Your task to perform on an android device: Open Chrome and go to settings Image 0: 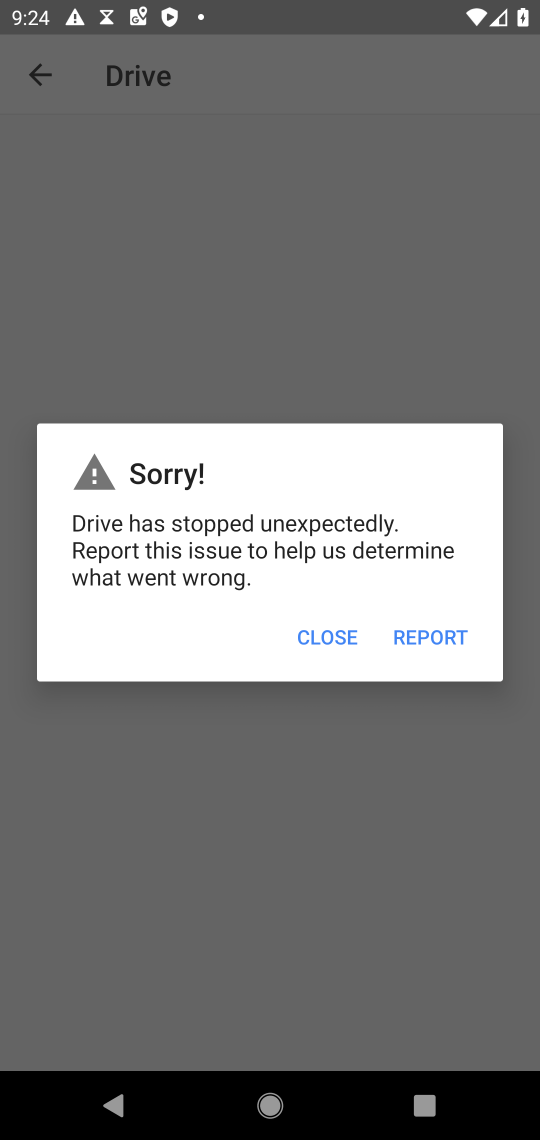
Step 0: press home button
Your task to perform on an android device: Open Chrome and go to settings Image 1: 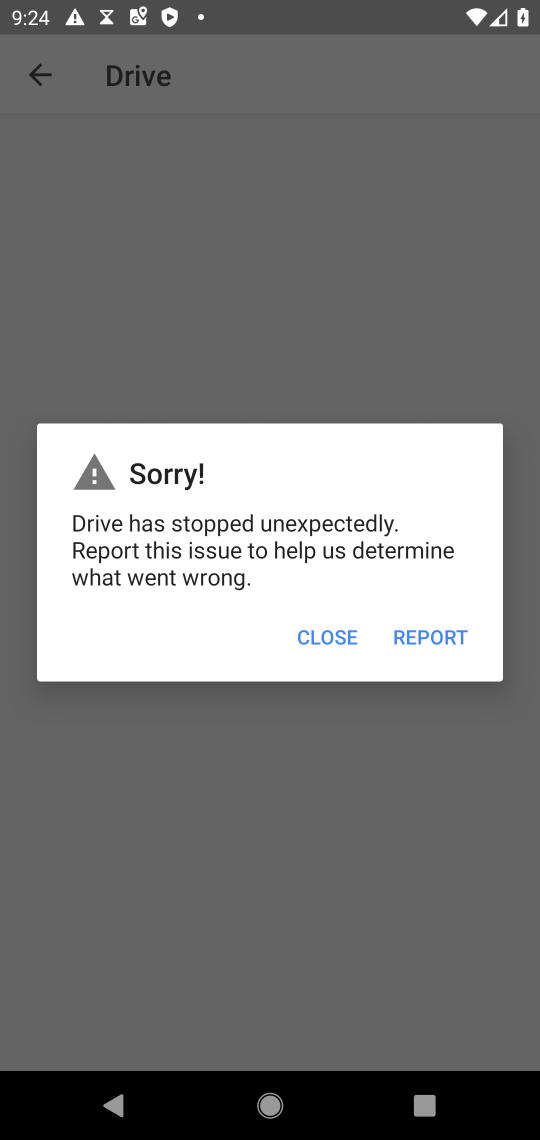
Step 1: press home button
Your task to perform on an android device: Open Chrome and go to settings Image 2: 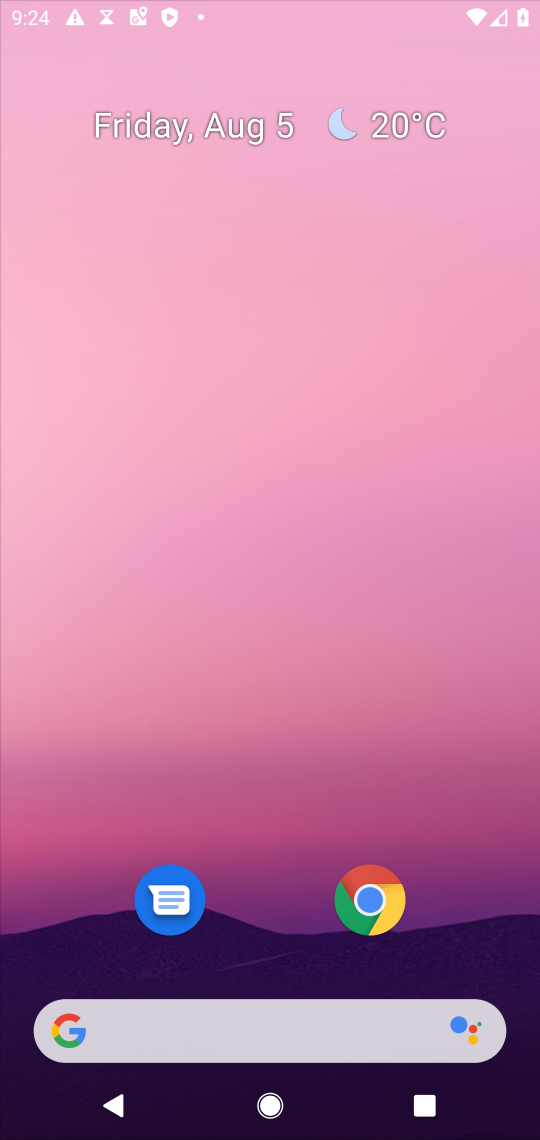
Step 2: press home button
Your task to perform on an android device: Open Chrome and go to settings Image 3: 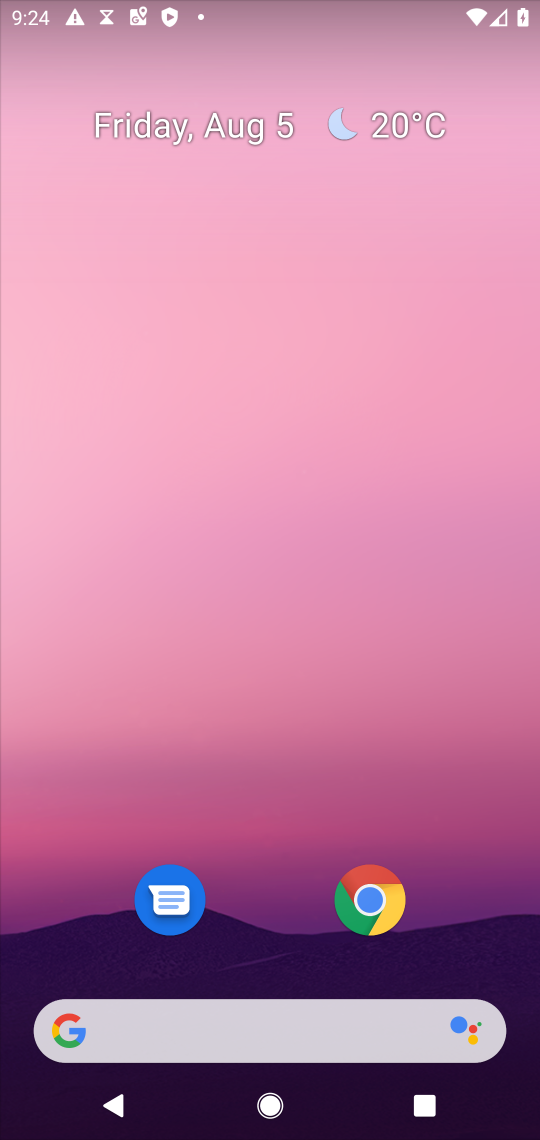
Step 3: press home button
Your task to perform on an android device: Open Chrome and go to settings Image 4: 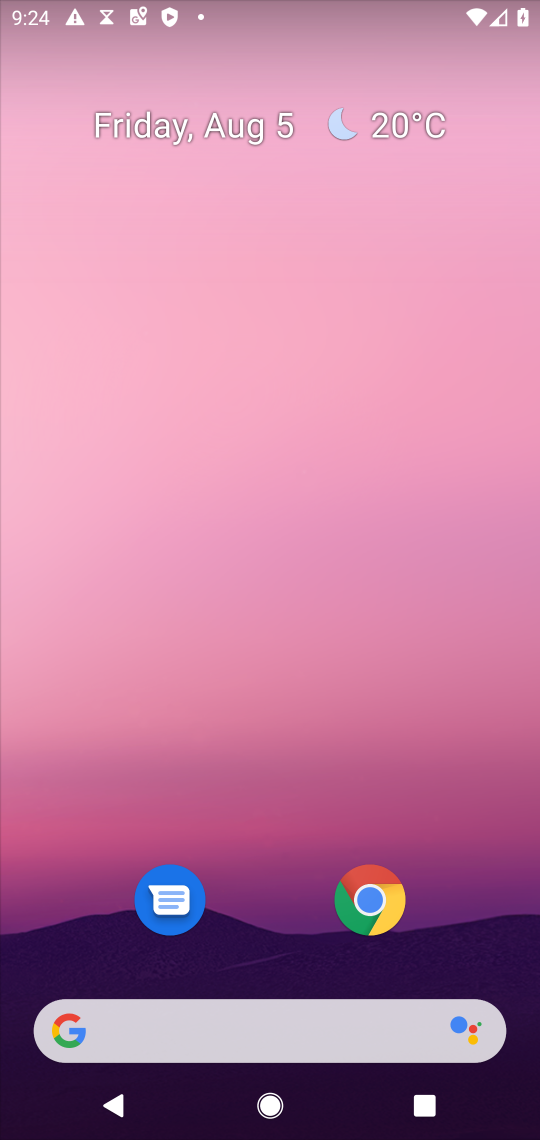
Step 4: drag from (198, 954) to (307, 71)
Your task to perform on an android device: Open Chrome and go to settings Image 5: 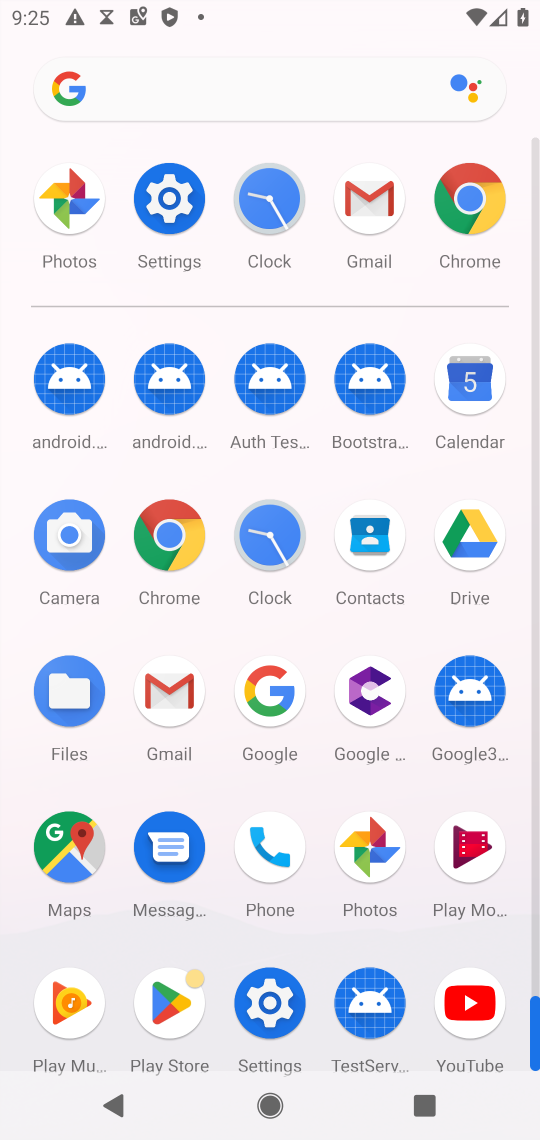
Step 5: click (170, 559)
Your task to perform on an android device: Open Chrome and go to settings Image 6: 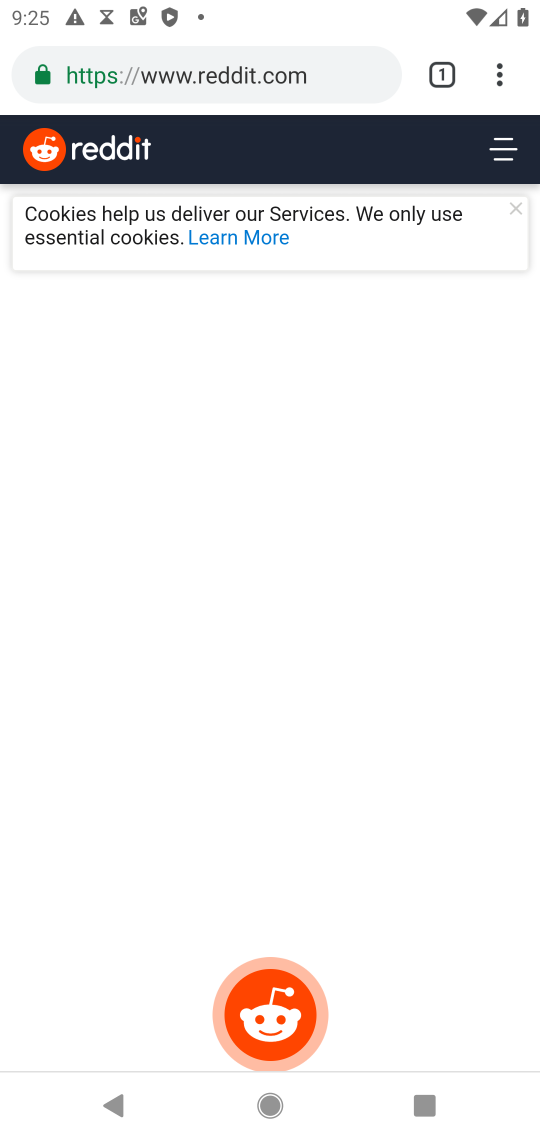
Step 6: task complete